Your task to perform on an android device: Go to Google Image 0: 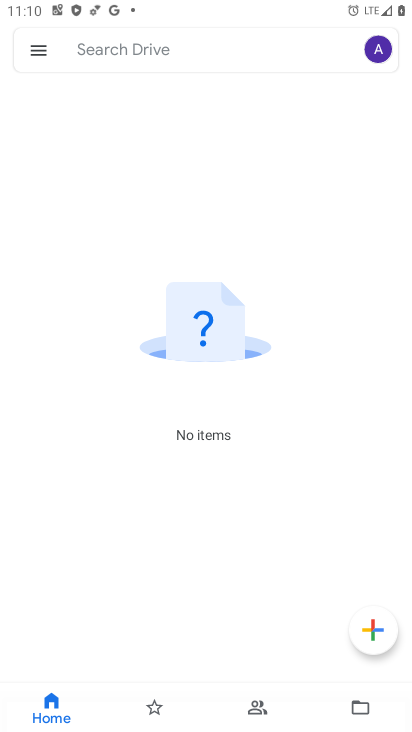
Step 0: press home button
Your task to perform on an android device: Go to Google Image 1: 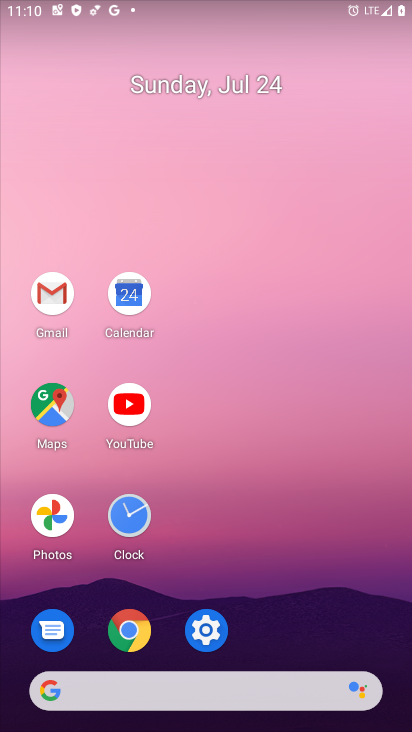
Step 1: click (43, 682)
Your task to perform on an android device: Go to Google Image 2: 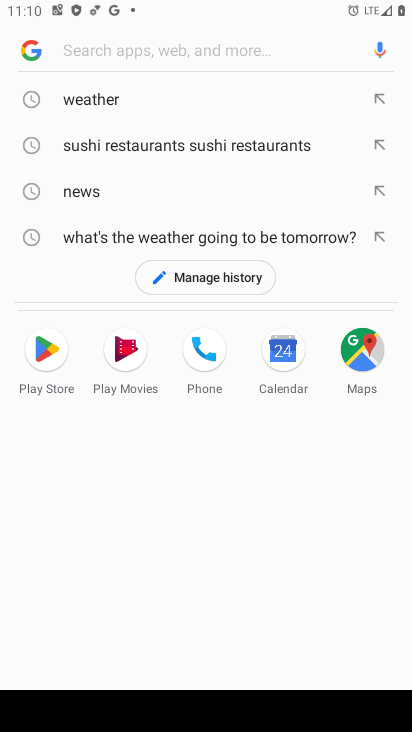
Step 2: click (26, 47)
Your task to perform on an android device: Go to Google Image 3: 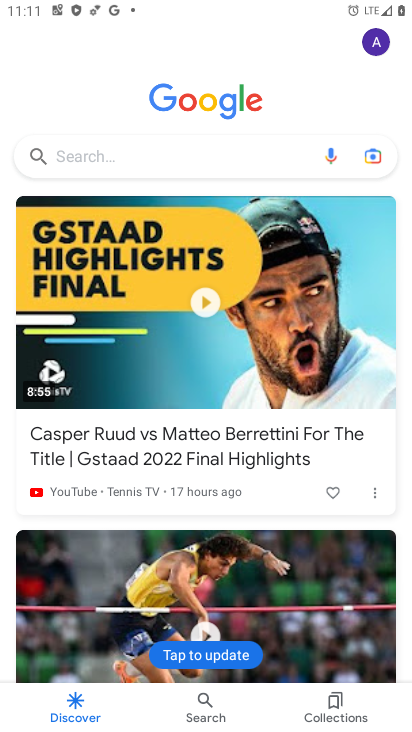
Step 3: task complete